Your task to perform on an android device: turn off picture-in-picture Image 0: 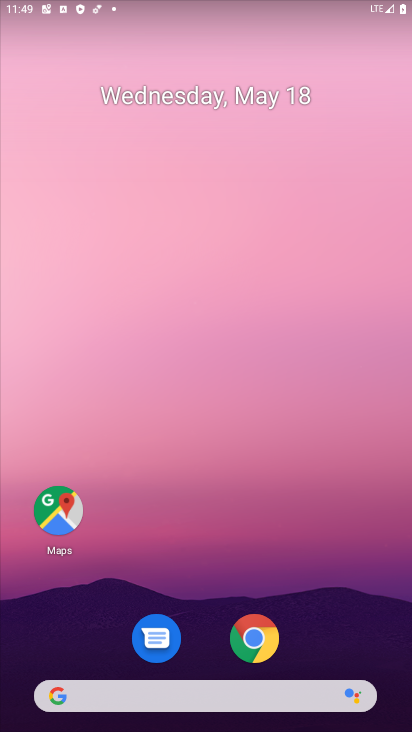
Step 0: drag from (381, 636) to (235, 28)
Your task to perform on an android device: turn off picture-in-picture Image 1: 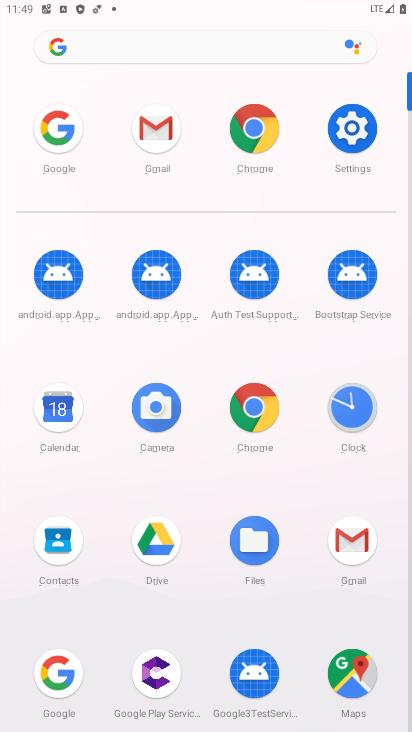
Step 1: click (260, 123)
Your task to perform on an android device: turn off picture-in-picture Image 2: 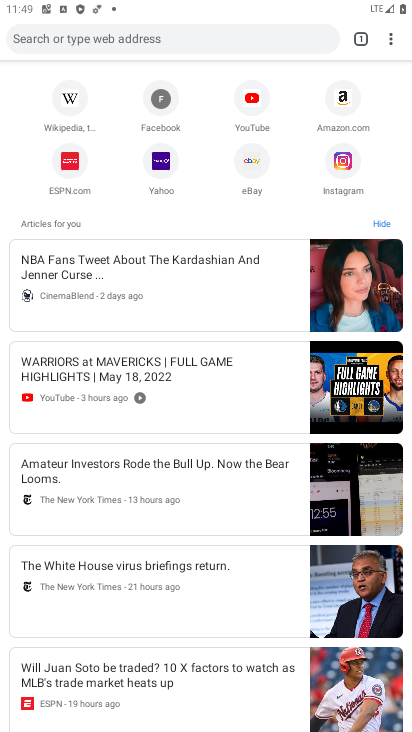
Step 2: task complete